Your task to perform on an android device: turn off location history Image 0: 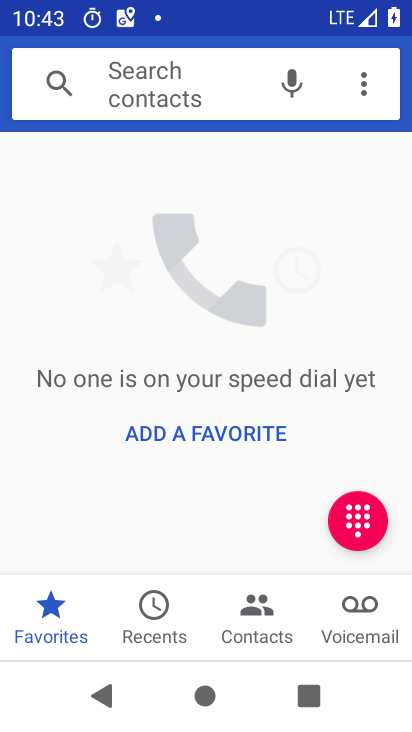
Step 0: press home button
Your task to perform on an android device: turn off location history Image 1: 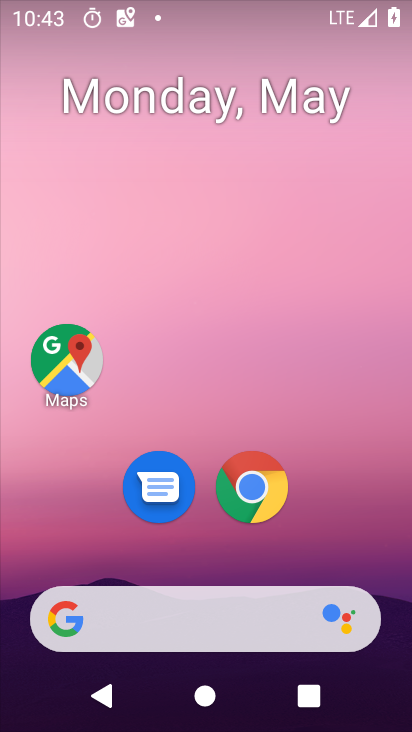
Step 1: drag from (296, 538) to (362, 30)
Your task to perform on an android device: turn off location history Image 2: 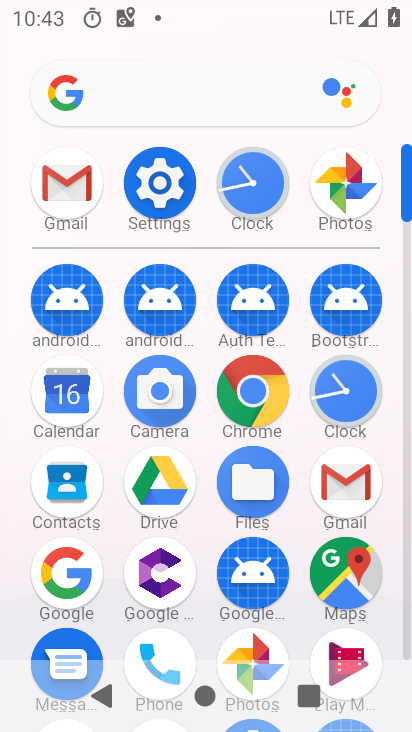
Step 2: click (156, 170)
Your task to perform on an android device: turn off location history Image 3: 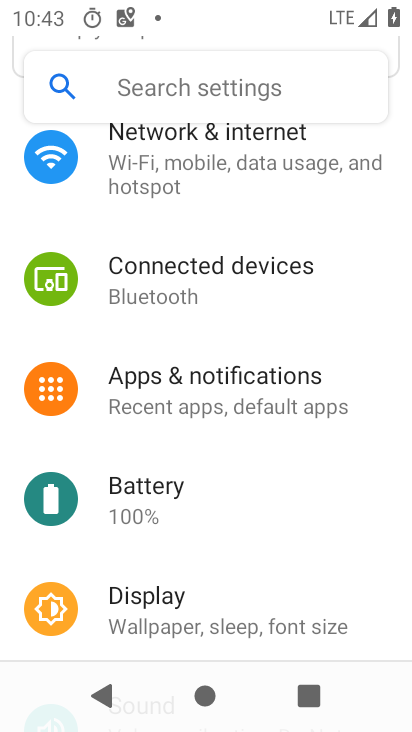
Step 3: drag from (193, 524) to (250, 342)
Your task to perform on an android device: turn off location history Image 4: 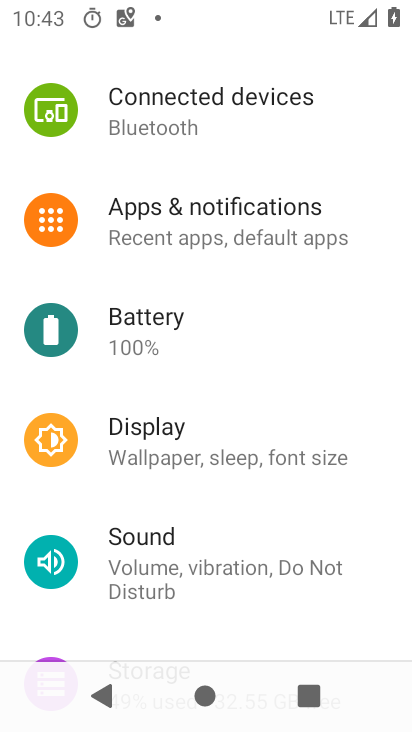
Step 4: drag from (208, 551) to (227, 373)
Your task to perform on an android device: turn off location history Image 5: 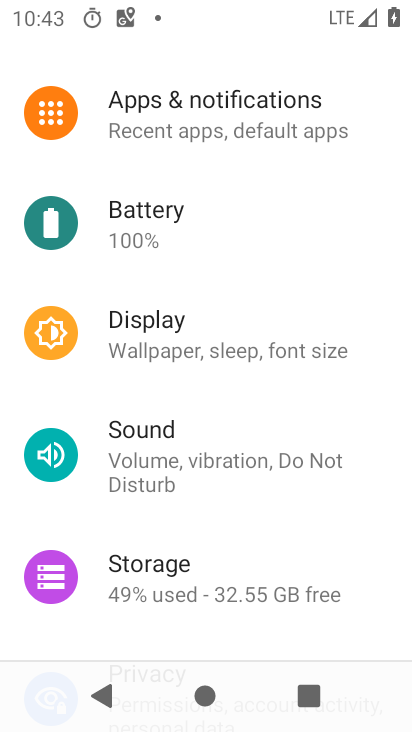
Step 5: drag from (209, 559) to (255, 330)
Your task to perform on an android device: turn off location history Image 6: 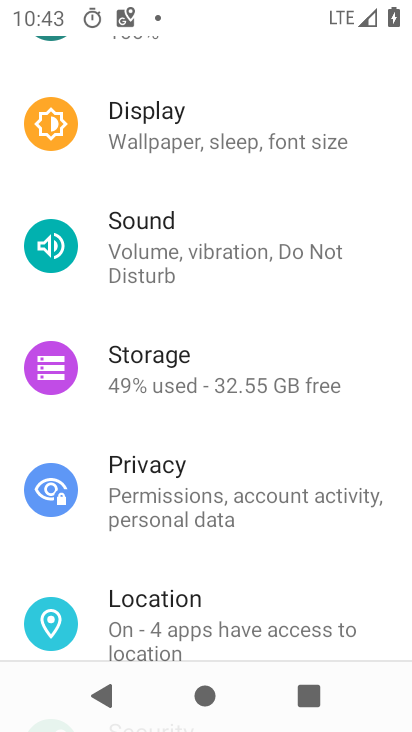
Step 6: click (177, 621)
Your task to perform on an android device: turn off location history Image 7: 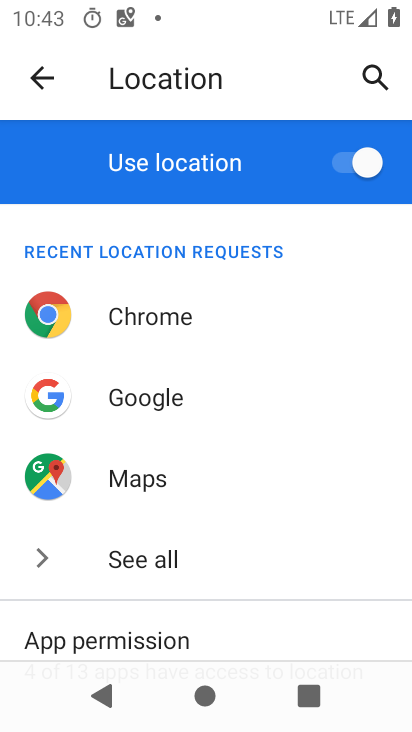
Step 7: drag from (177, 627) to (207, 471)
Your task to perform on an android device: turn off location history Image 8: 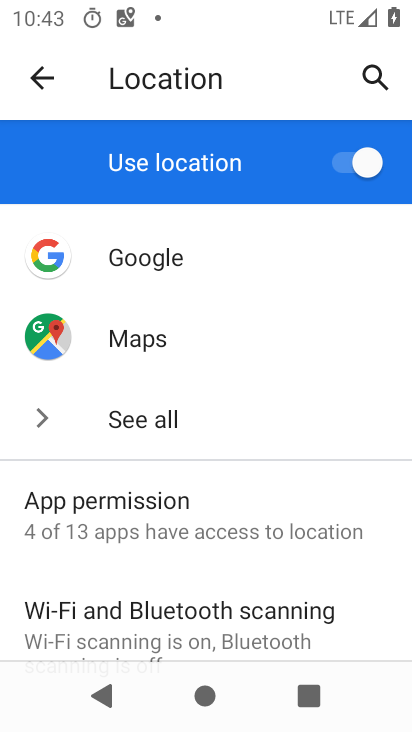
Step 8: drag from (216, 621) to (267, 370)
Your task to perform on an android device: turn off location history Image 9: 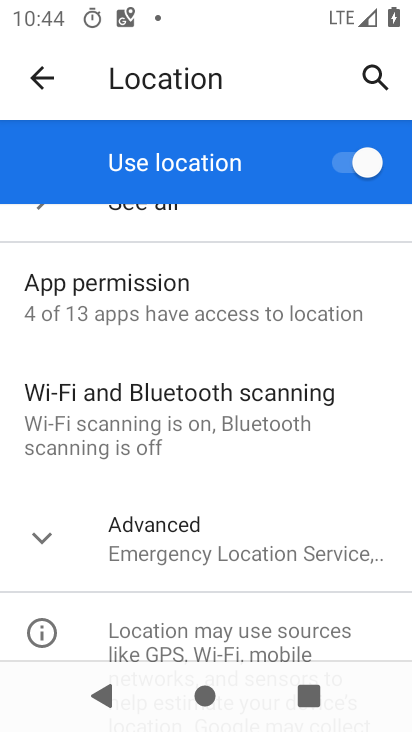
Step 9: click (256, 539)
Your task to perform on an android device: turn off location history Image 10: 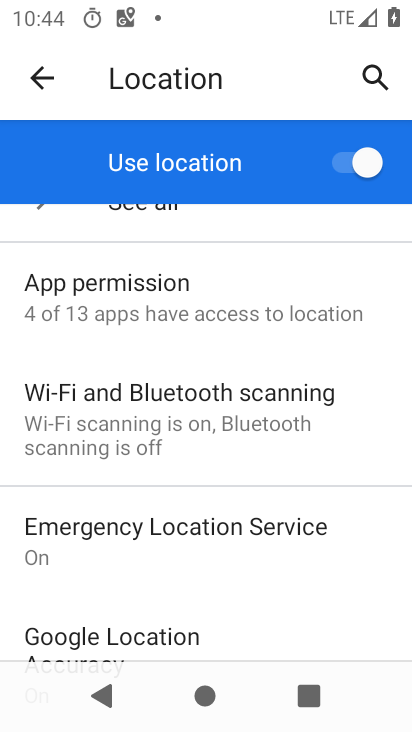
Step 10: drag from (234, 606) to (286, 438)
Your task to perform on an android device: turn off location history Image 11: 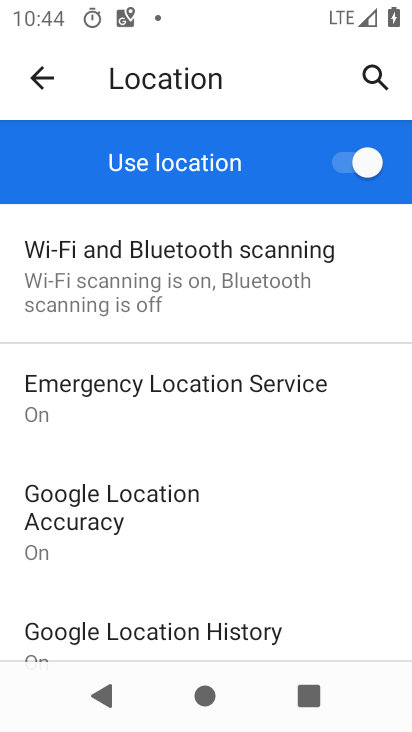
Step 11: click (139, 628)
Your task to perform on an android device: turn off location history Image 12: 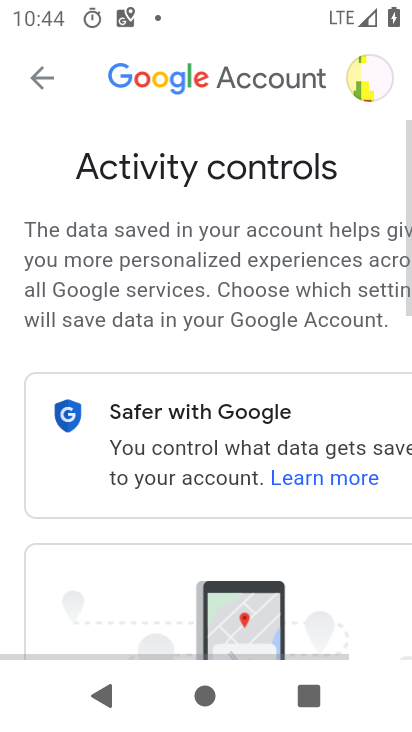
Step 12: drag from (270, 597) to (298, 196)
Your task to perform on an android device: turn off location history Image 13: 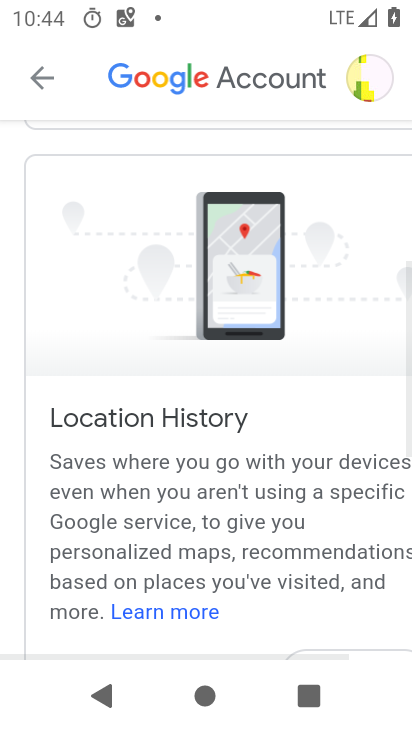
Step 13: drag from (318, 576) to (311, 215)
Your task to perform on an android device: turn off location history Image 14: 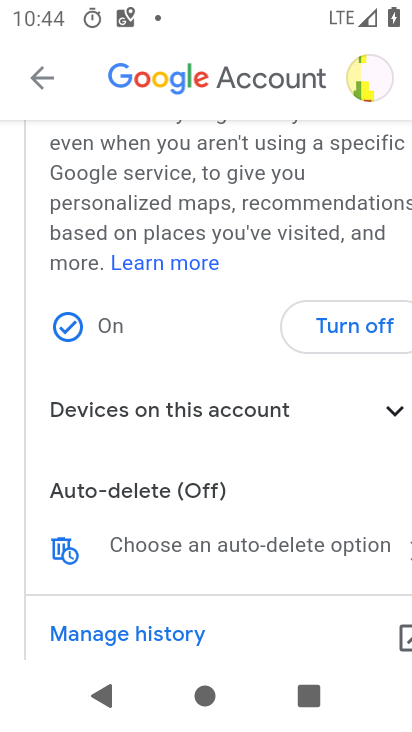
Step 14: click (327, 316)
Your task to perform on an android device: turn off location history Image 15: 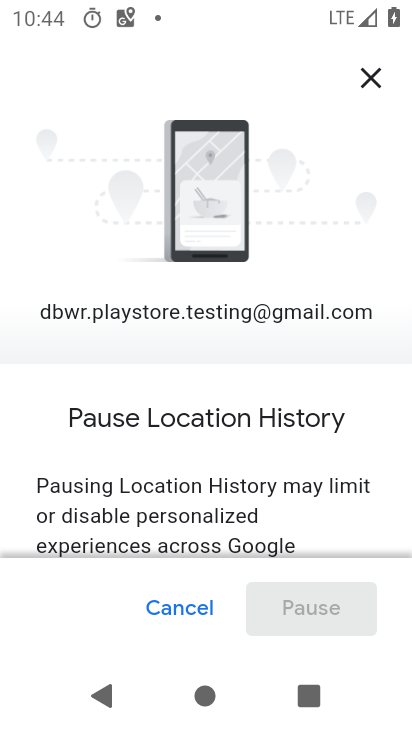
Step 15: drag from (234, 534) to (296, 215)
Your task to perform on an android device: turn off location history Image 16: 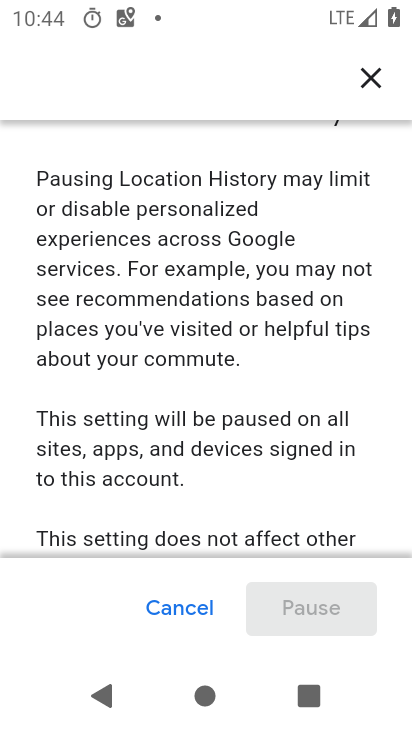
Step 16: drag from (307, 505) to (365, 182)
Your task to perform on an android device: turn off location history Image 17: 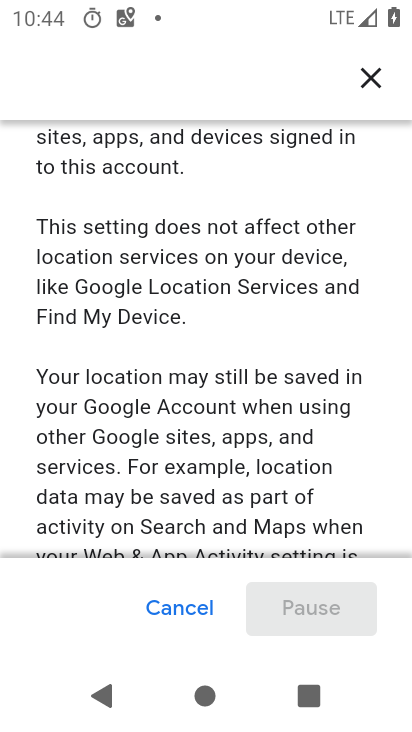
Step 17: drag from (297, 526) to (330, 204)
Your task to perform on an android device: turn off location history Image 18: 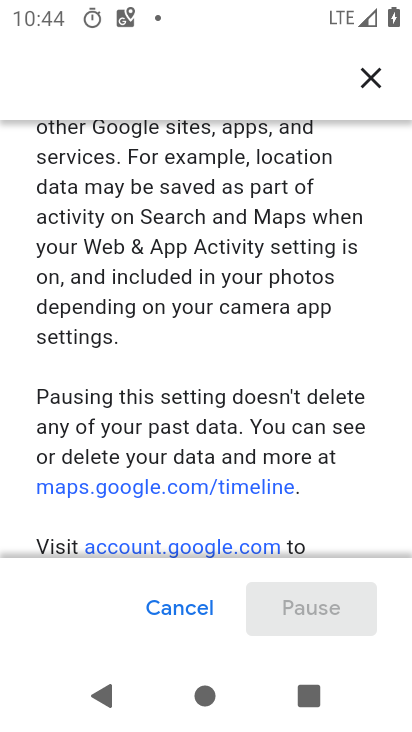
Step 18: drag from (280, 451) to (339, 88)
Your task to perform on an android device: turn off location history Image 19: 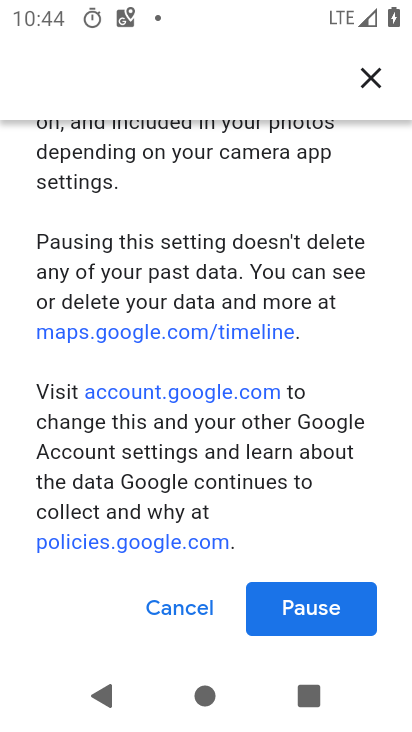
Step 19: click (303, 608)
Your task to perform on an android device: turn off location history Image 20: 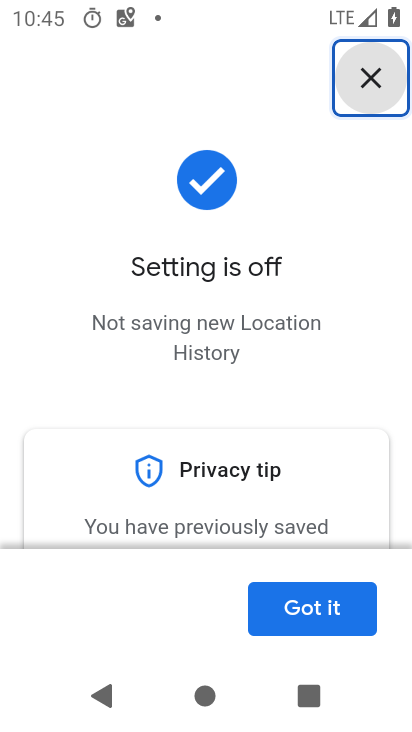
Step 20: task complete